Your task to perform on an android device: change alarm snooze length Image 0: 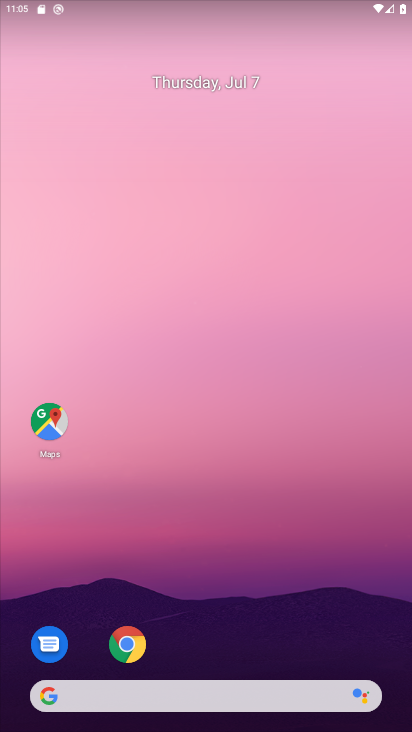
Step 0: drag from (220, 725) to (220, 531)
Your task to perform on an android device: change alarm snooze length Image 1: 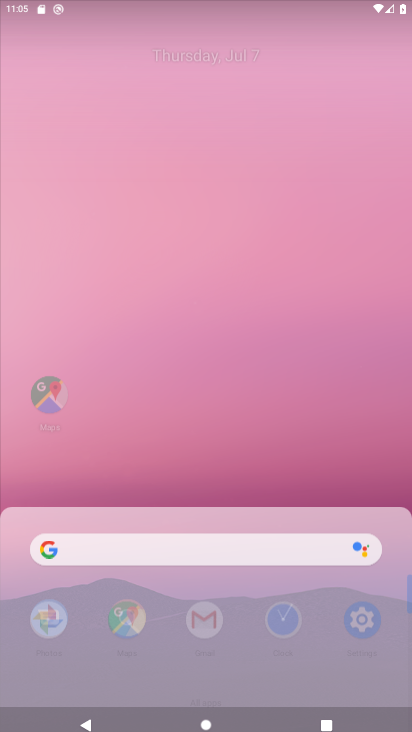
Step 1: click (191, 264)
Your task to perform on an android device: change alarm snooze length Image 2: 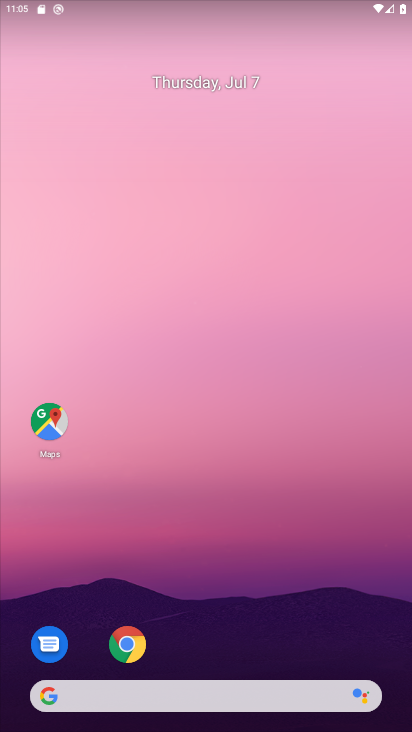
Step 2: drag from (241, 718) to (241, 255)
Your task to perform on an android device: change alarm snooze length Image 3: 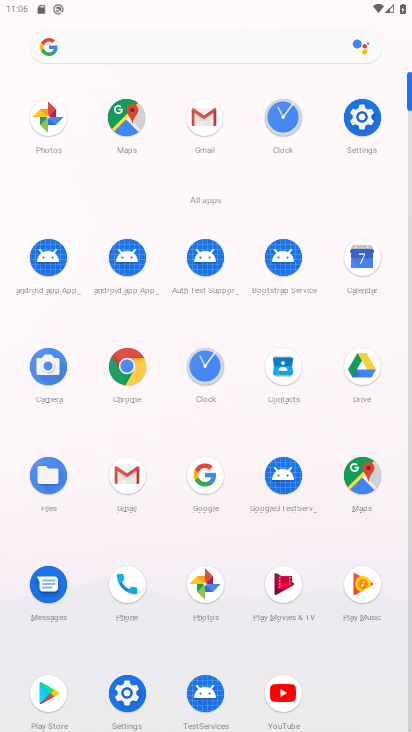
Step 3: click (206, 364)
Your task to perform on an android device: change alarm snooze length Image 4: 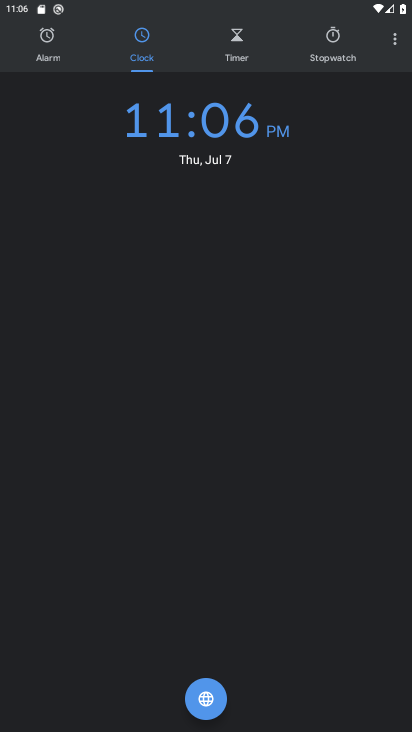
Step 4: click (395, 43)
Your task to perform on an android device: change alarm snooze length Image 5: 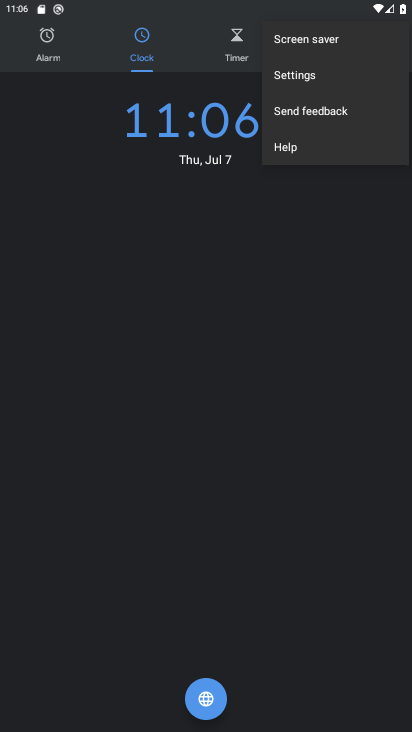
Step 5: click (305, 74)
Your task to perform on an android device: change alarm snooze length Image 6: 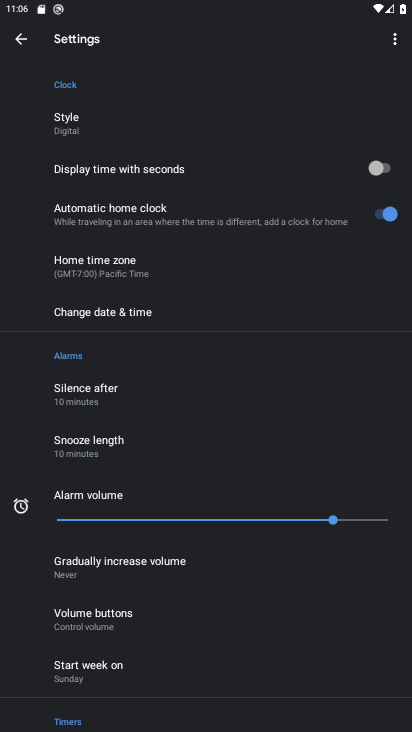
Step 6: click (96, 438)
Your task to perform on an android device: change alarm snooze length Image 7: 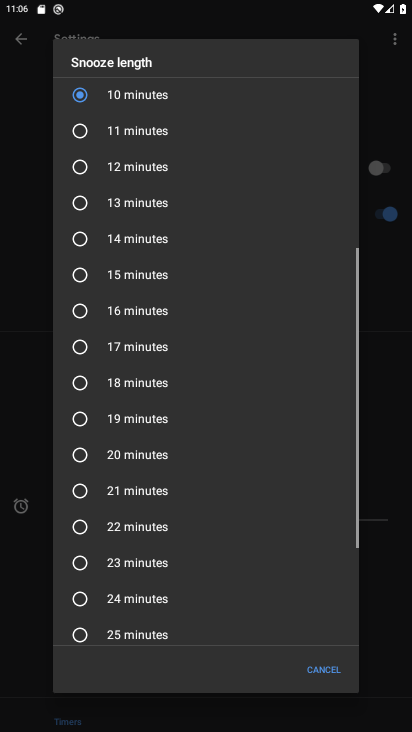
Step 7: click (82, 453)
Your task to perform on an android device: change alarm snooze length Image 8: 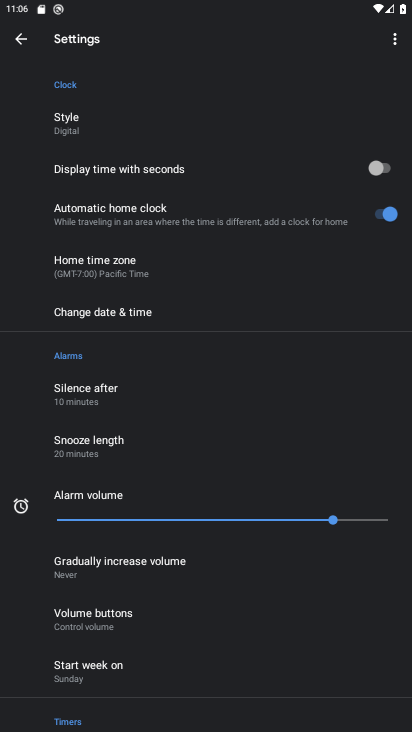
Step 8: task complete